Your task to perform on an android device: Go to Google maps Image 0: 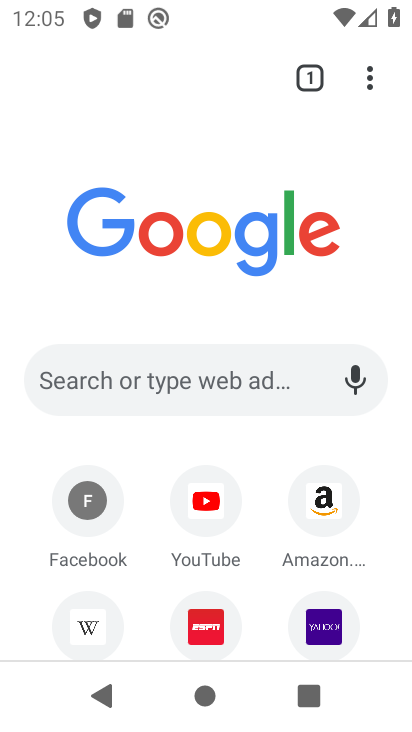
Step 0: press back button
Your task to perform on an android device: Go to Google maps Image 1: 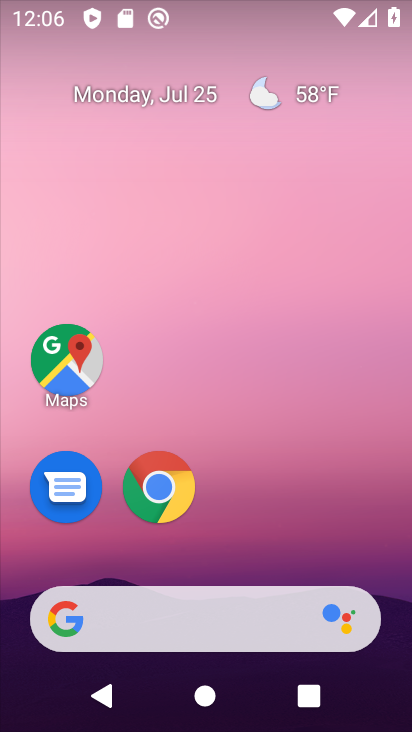
Step 1: click (86, 368)
Your task to perform on an android device: Go to Google maps Image 2: 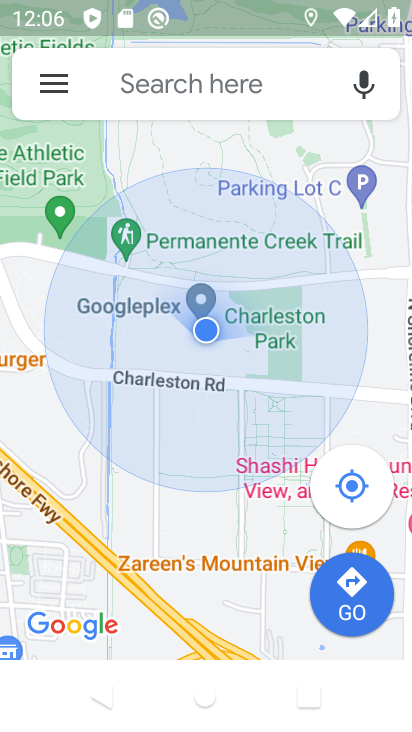
Step 2: task complete